Your task to perform on an android device: change the clock display to analog Image 0: 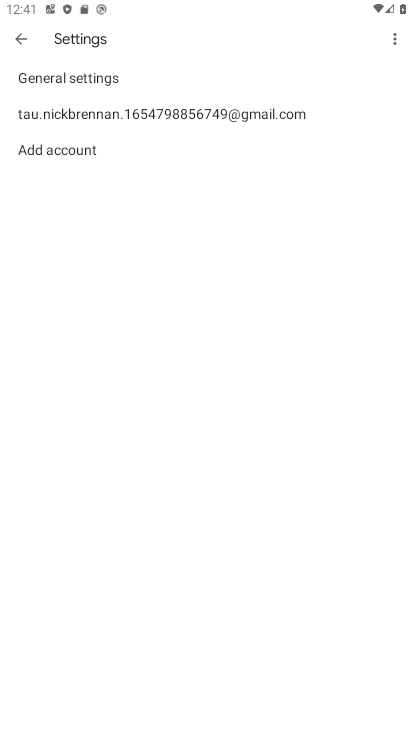
Step 0: press home button
Your task to perform on an android device: change the clock display to analog Image 1: 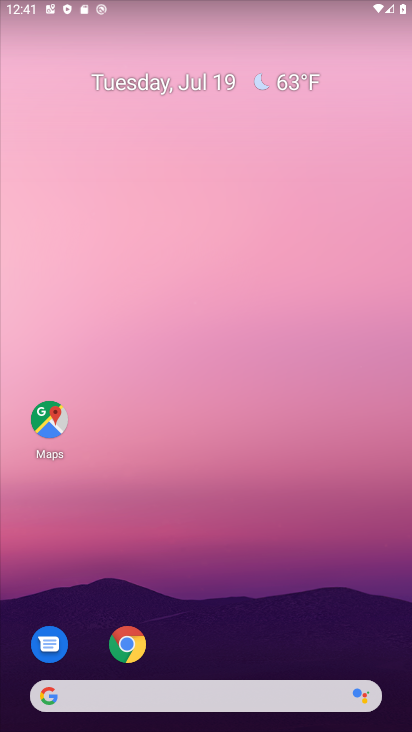
Step 1: drag from (237, 719) to (237, 232)
Your task to perform on an android device: change the clock display to analog Image 2: 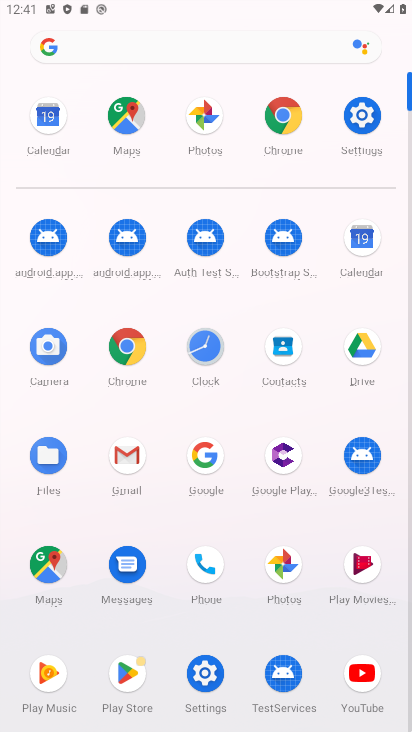
Step 2: click (208, 352)
Your task to perform on an android device: change the clock display to analog Image 3: 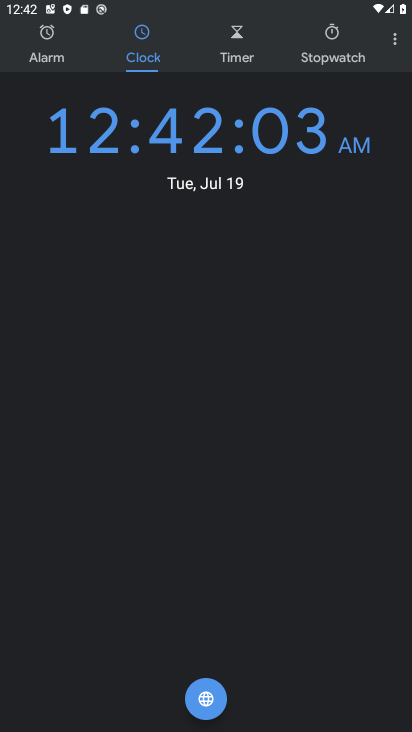
Step 3: click (399, 43)
Your task to perform on an android device: change the clock display to analog Image 4: 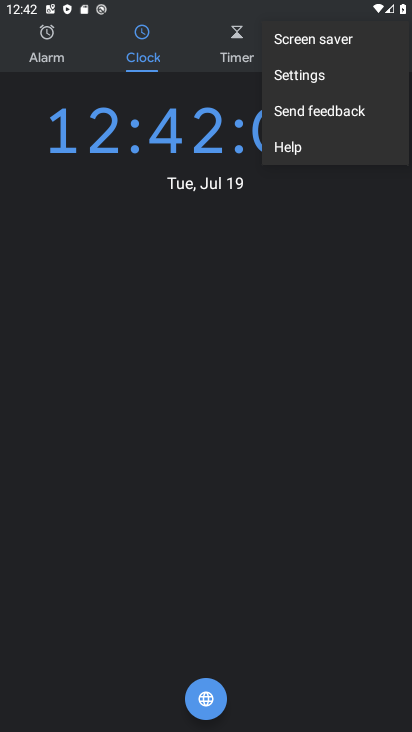
Step 4: click (303, 72)
Your task to perform on an android device: change the clock display to analog Image 5: 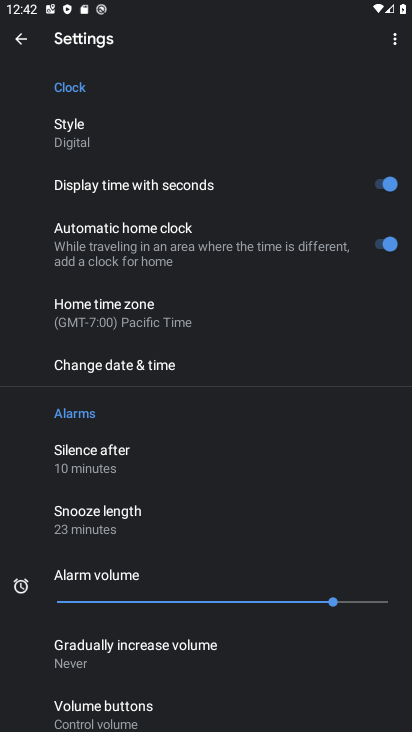
Step 5: click (59, 148)
Your task to perform on an android device: change the clock display to analog Image 6: 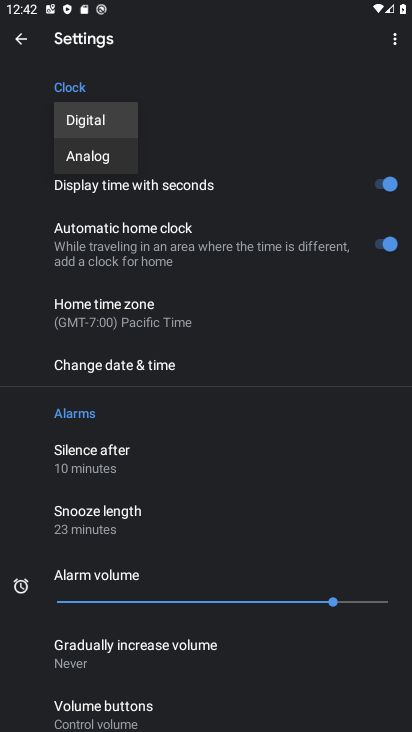
Step 6: click (96, 154)
Your task to perform on an android device: change the clock display to analog Image 7: 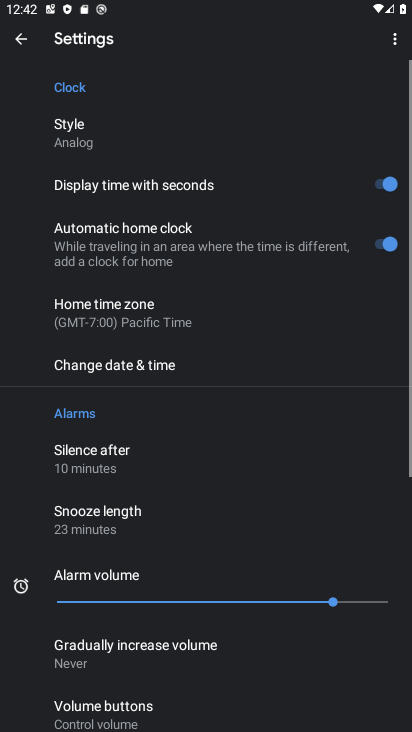
Step 7: task complete